Your task to perform on an android device: turn off javascript in the chrome app Image 0: 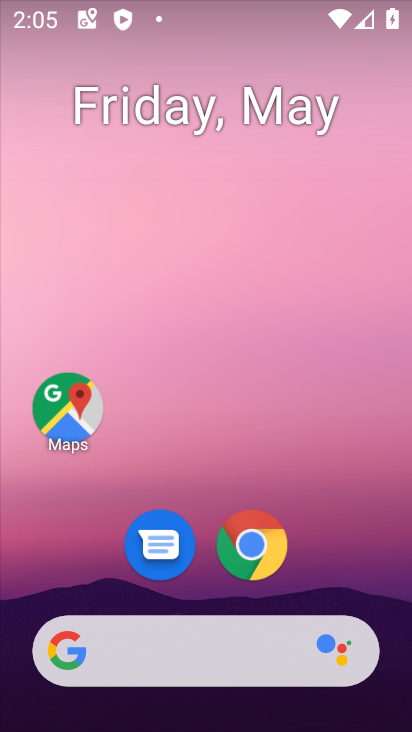
Step 0: click (245, 559)
Your task to perform on an android device: turn off javascript in the chrome app Image 1: 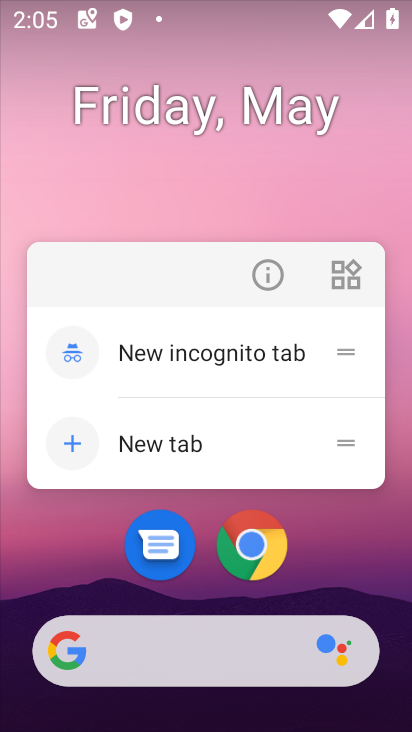
Step 1: click (247, 557)
Your task to perform on an android device: turn off javascript in the chrome app Image 2: 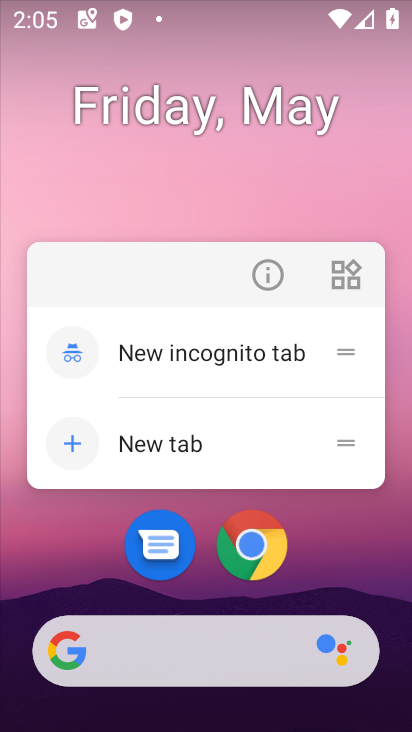
Step 2: click (266, 539)
Your task to perform on an android device: turn off javascript in the chrome app Image 3: 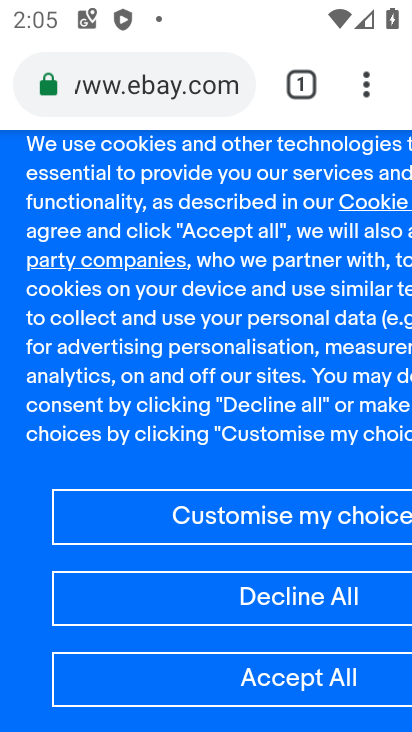
Step 3: drag from (370, 70) to (268, 610)
Your task to perform on an android device: turn off javascript in the chrome app Image 4: 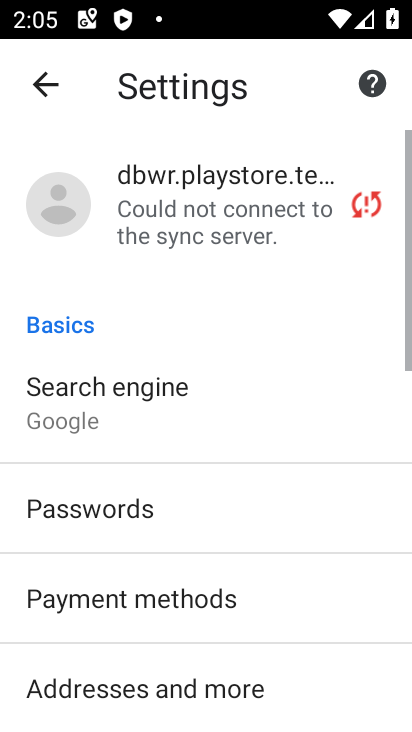
Step 4: drag from (193, 589) to (277, 208)
Your task to perform on an android device: turn off javascript in the chrome app Image 5: 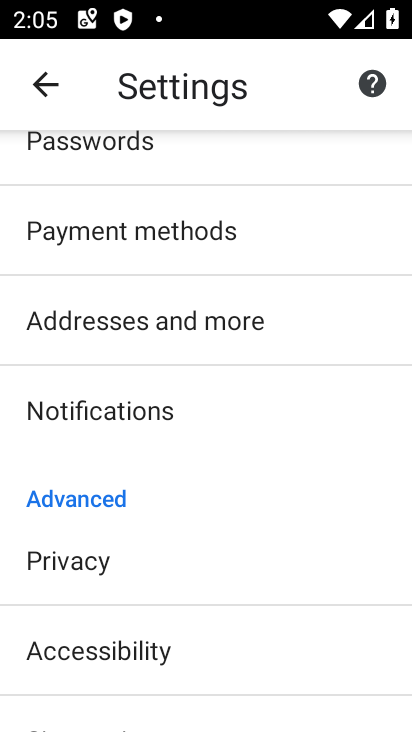
Step 5: drag from (133, 647) to (239, 252)
Your task to perform on an android device: turn off javascript in the chrome app Image 6: 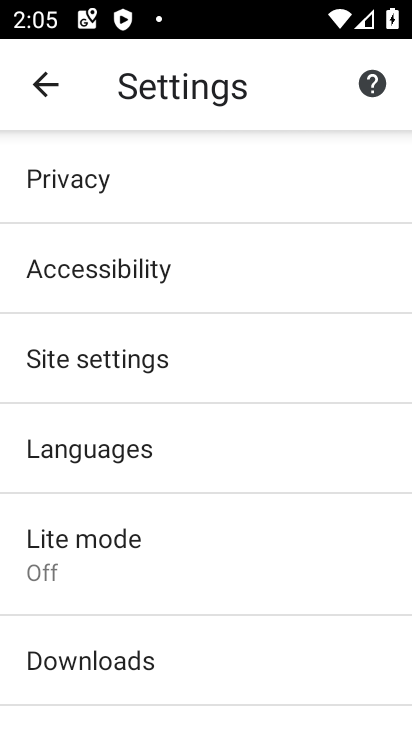
Step 6: click (153, 347)
Your task to perform on an android device: turn off javascript in the chrome app Image 7: 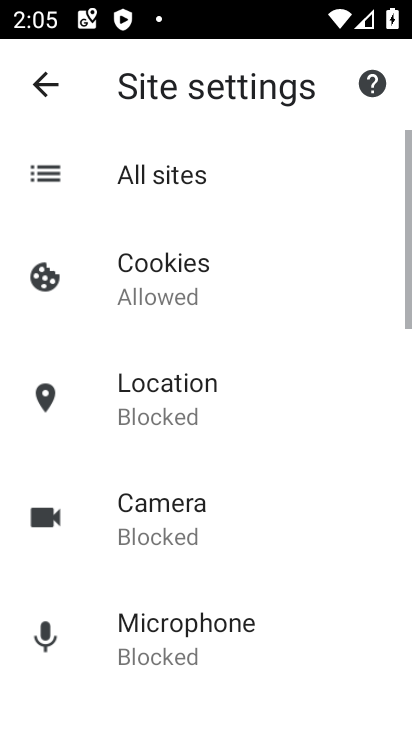
Step 7: drag from (216, 604) to (336, 169)
Your task to perform on an android device: turn off javascript in the chrome app Image 8: 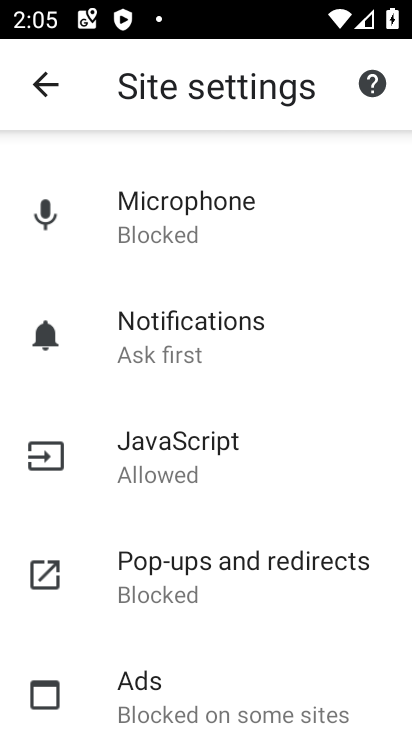
Step 8: click (251, 451)
Your task to perform on an android device: turn off javascript in the chrome app Image 9: 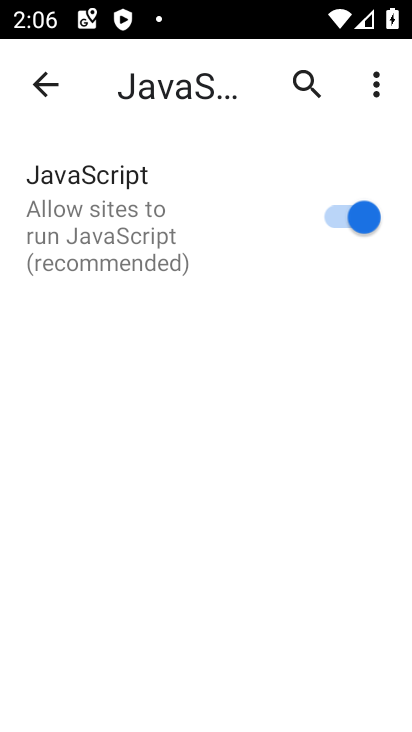
Step 9: click (339, 226)
Your task to perform on an android device: turn off javascript in the chrome app Image 10: 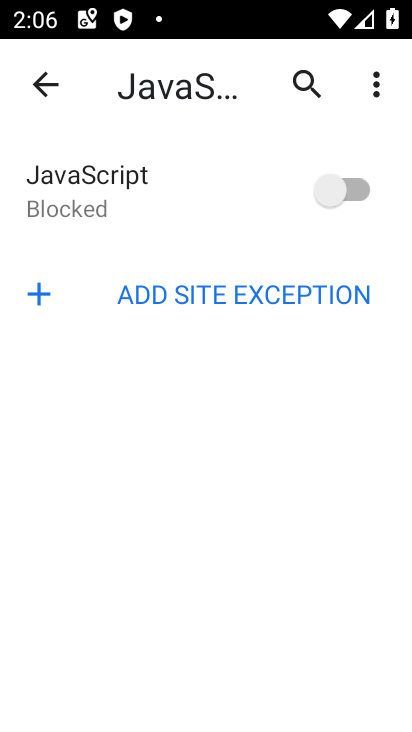
Step 10: task complete